Your task to perform on an android device: Open Google Chrome Image 0: 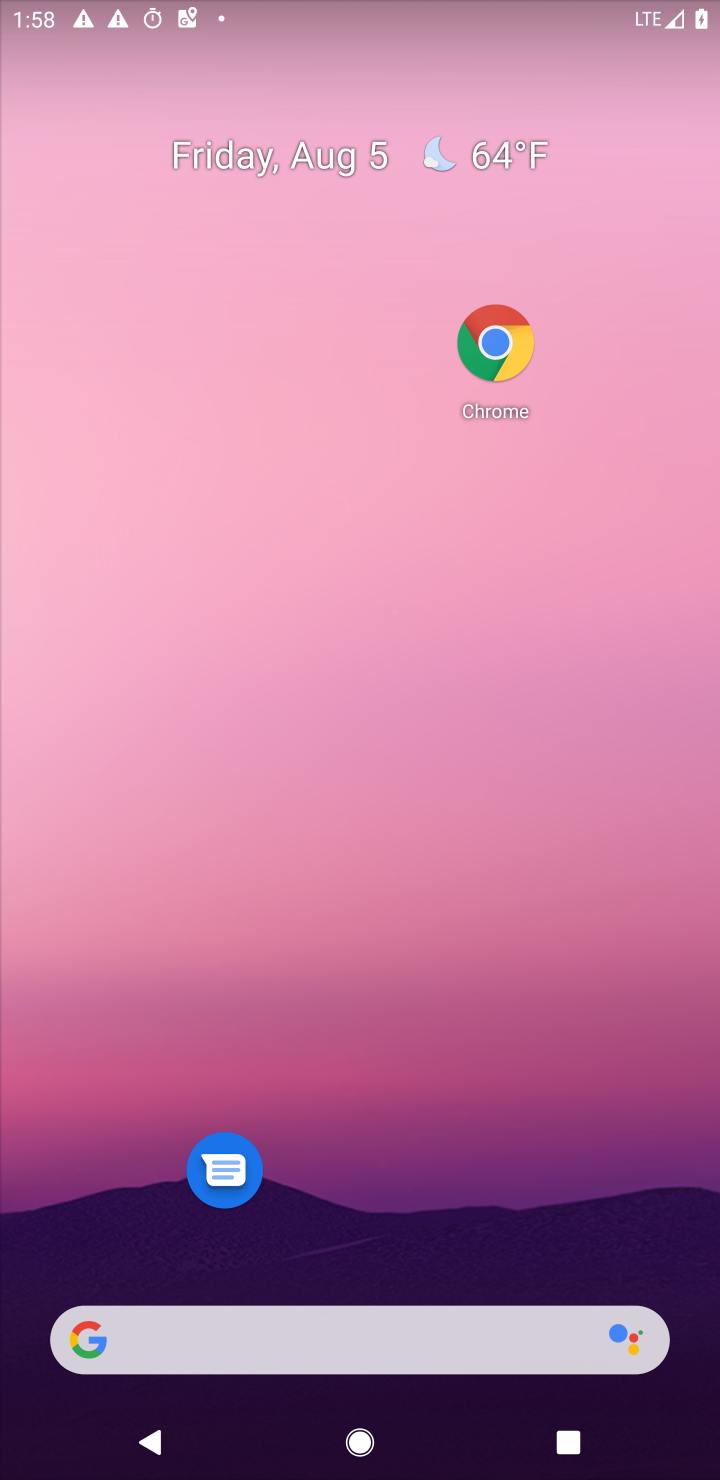
Step 0: drag from (372, 1249) to (296, 193)
Your task to perform on an android device: Open Google Chrome Image 1: 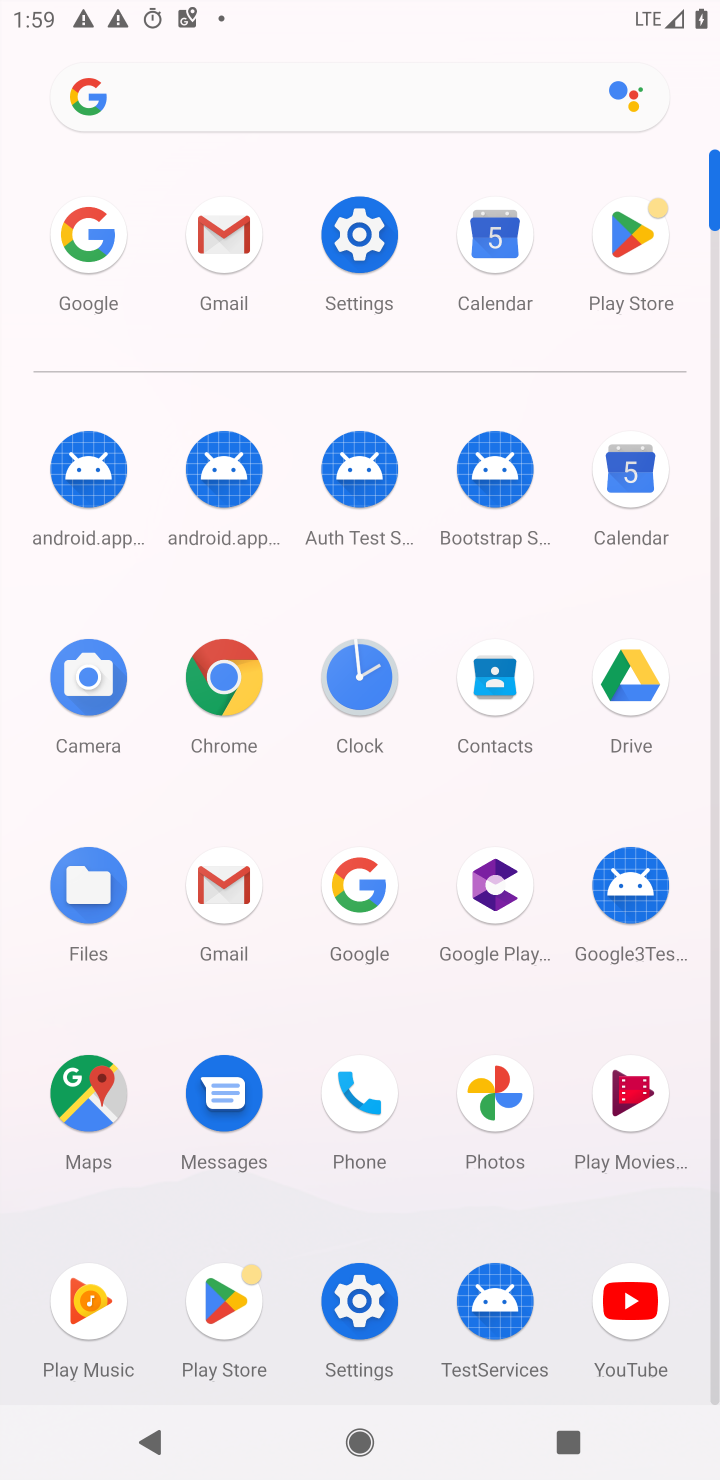
Step 1: click (234, 691)
Your task to perform on an android device: Open Google Chrome Image 2: 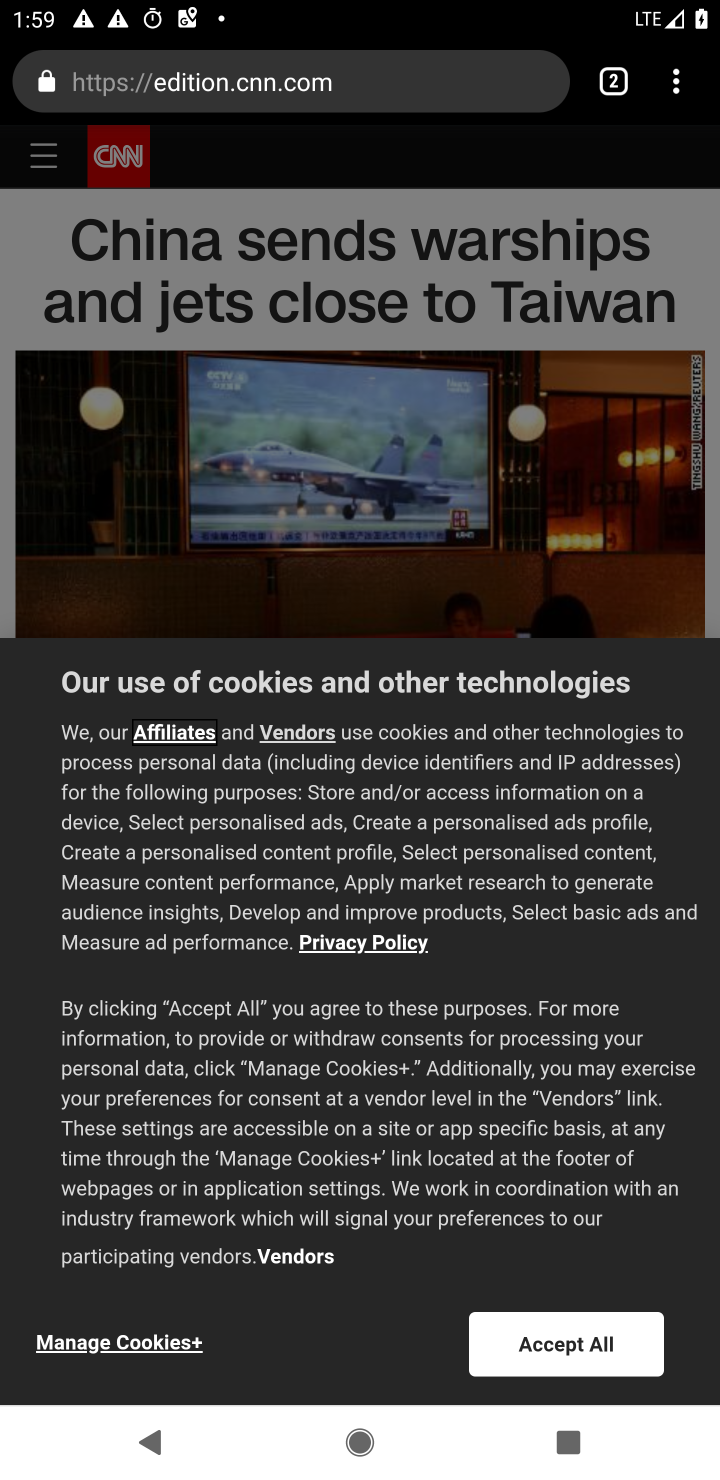
Step 2: click (539, 1345)
Your task to perform on an android device: Open Google Chrome Image 3: 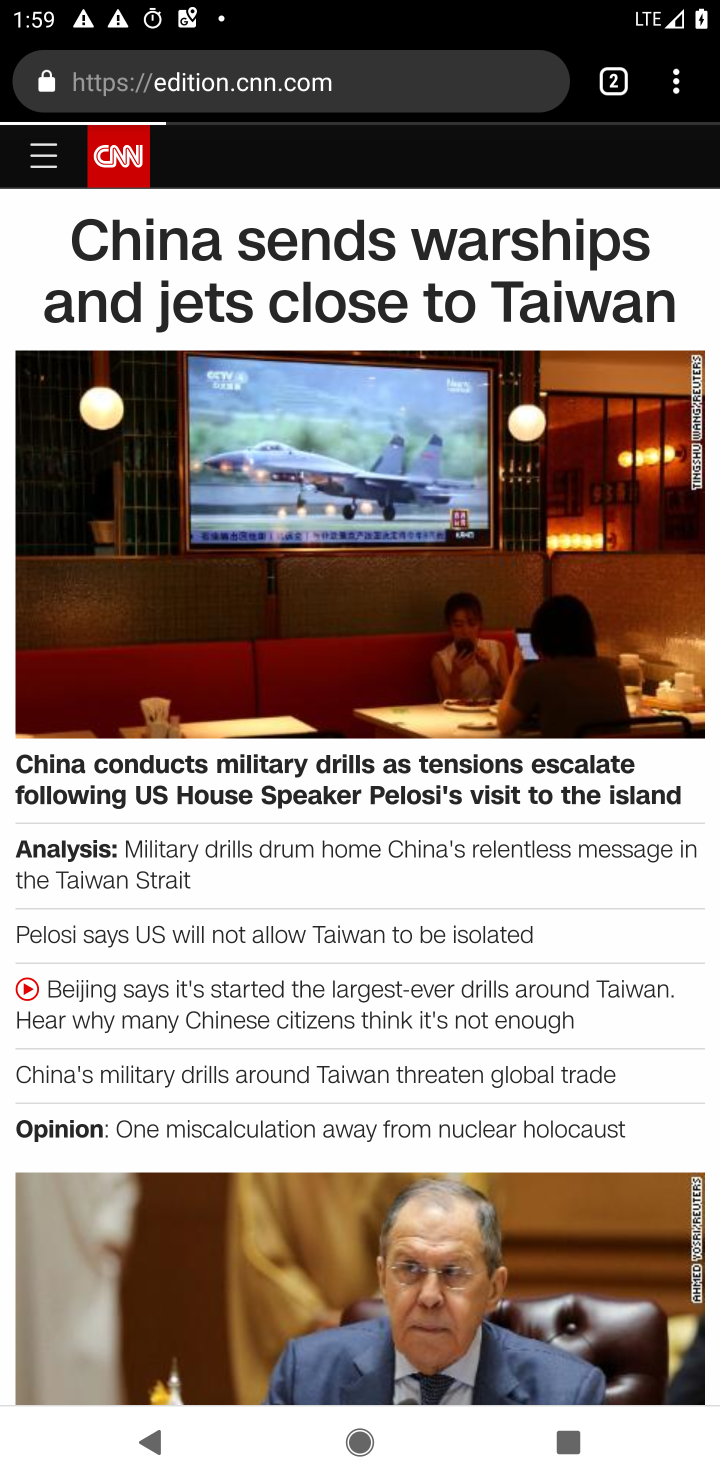
Step 3: task complete